Your task to perform on an android device: Open wifi settings Image 0: 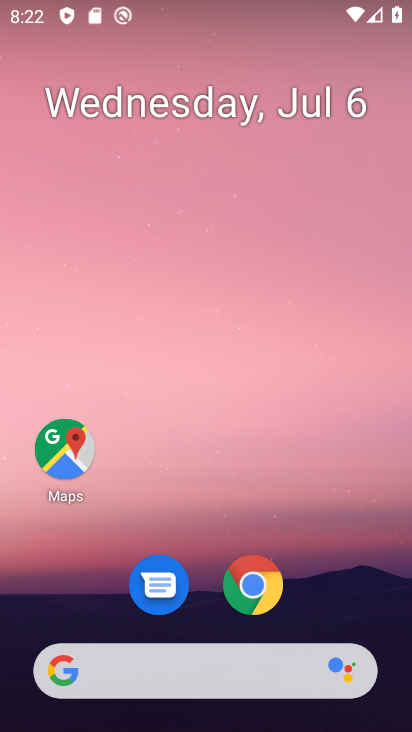
Step 0: drag from (209, 515) to (230, 0)
Your task to perform on an android device: Open wifi settings Image 1: 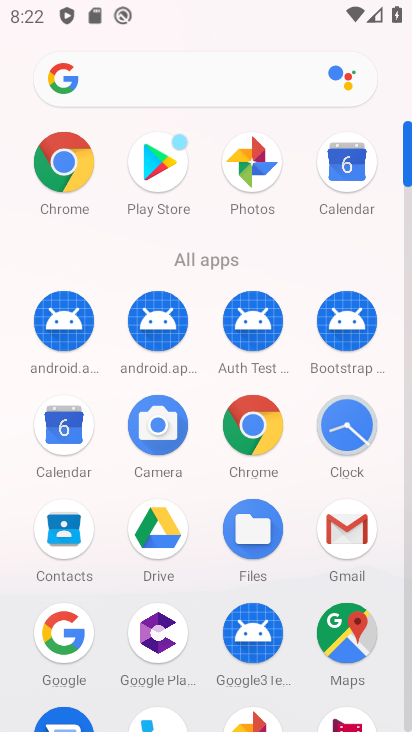
Step 1: drag from (195, 578) to (223, 151)
Your task to perform on an android device: Open wifi settings Image 2: 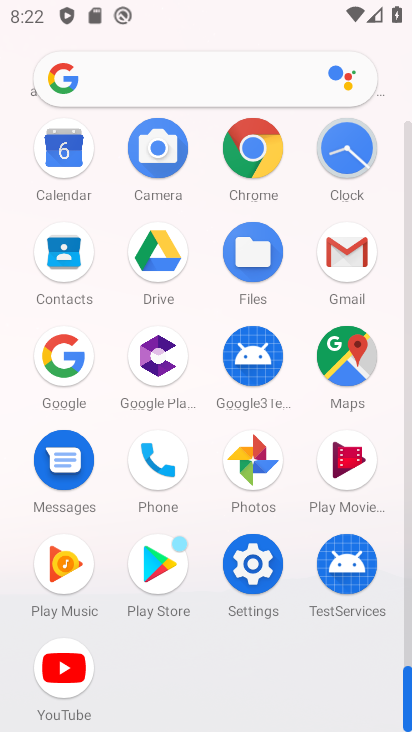
Step 2: click (256, 564)
Your task to perform on an android device: Open wifi settings Image 3: 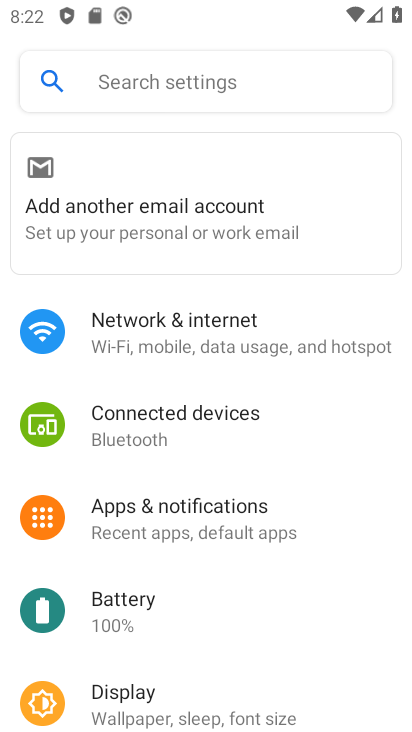
Step 3: click (228, 332)
Your task to perform on an android device: Open wifi settings Image 4: 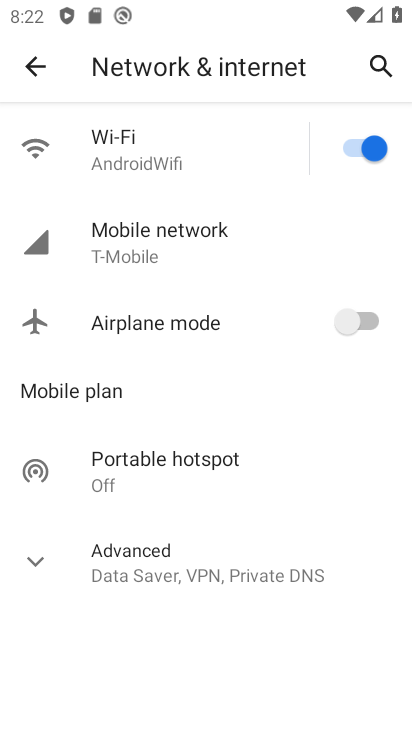
Step 4: click (107, 139)
Your task to perform on an android device: Open wifi settings Image 5: 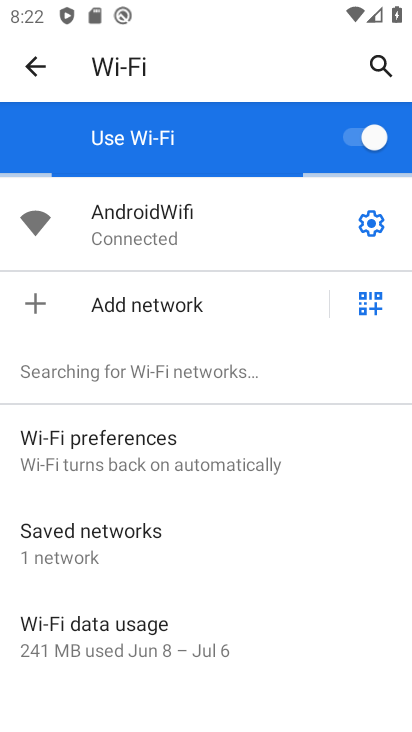
Step 5: task complete